Your task to perform on an android device: snooze an email in the gmail app Image 0: 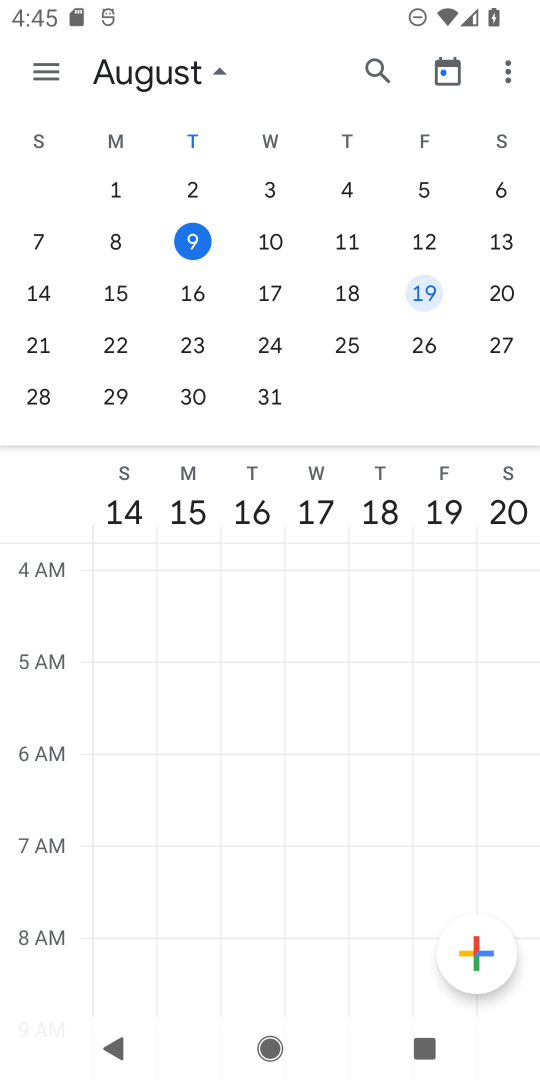
Step 0: press home button
Your task to perform on an android device: snooze an email in the gmail app Image 1: 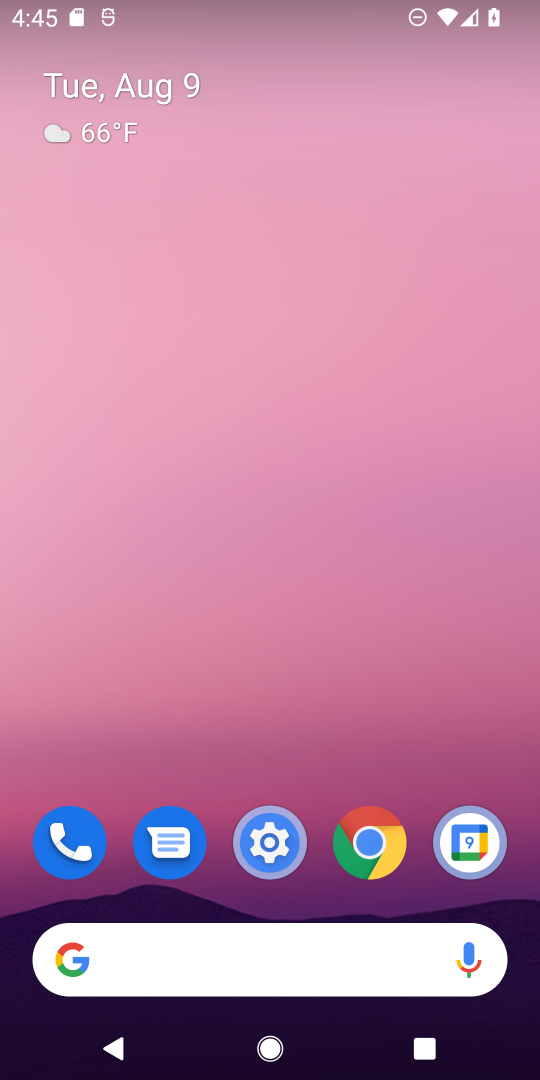
Step 1: drag from (257, 948) to (236, 559)
Your task to perform on an android device: snooze an email in the gmail app Image 2: 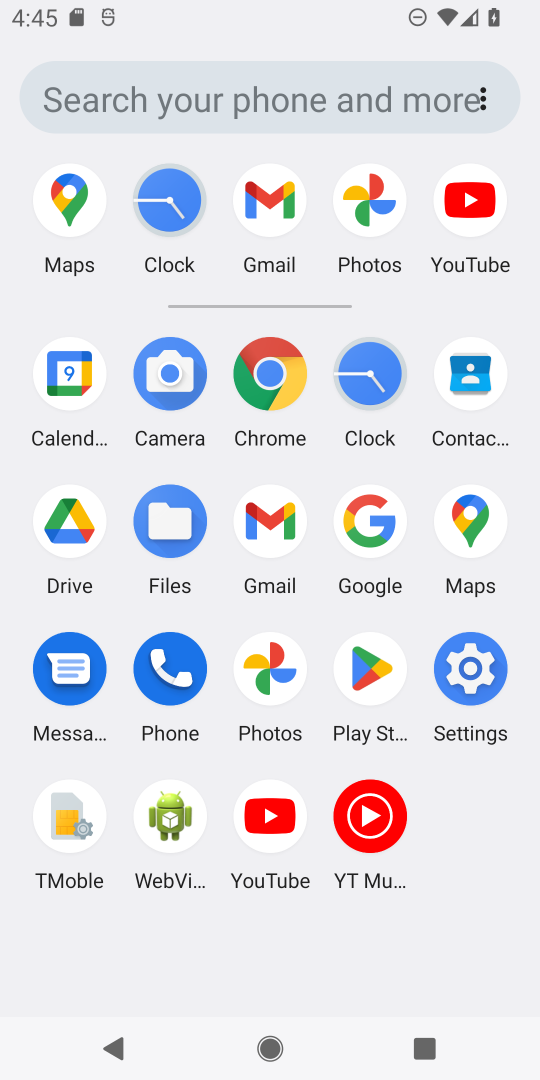
Step 2: click (265, 511)
Your task to perform on an android device: snooze an email in the gmail app Image 3: 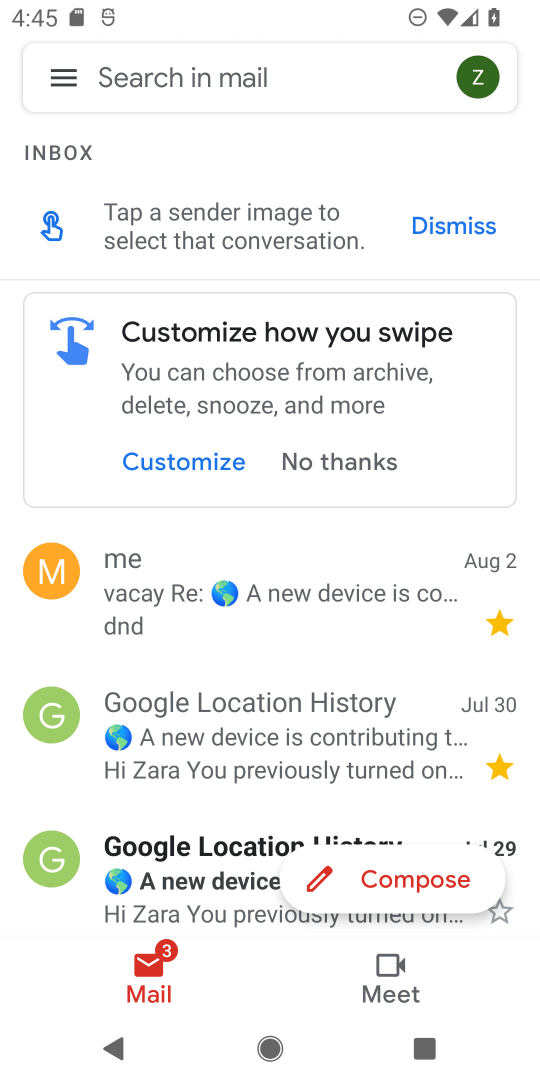
Step 3: click (73, 82)
Your task to perform on an android device: snooze an email in the gmail app Image 4: 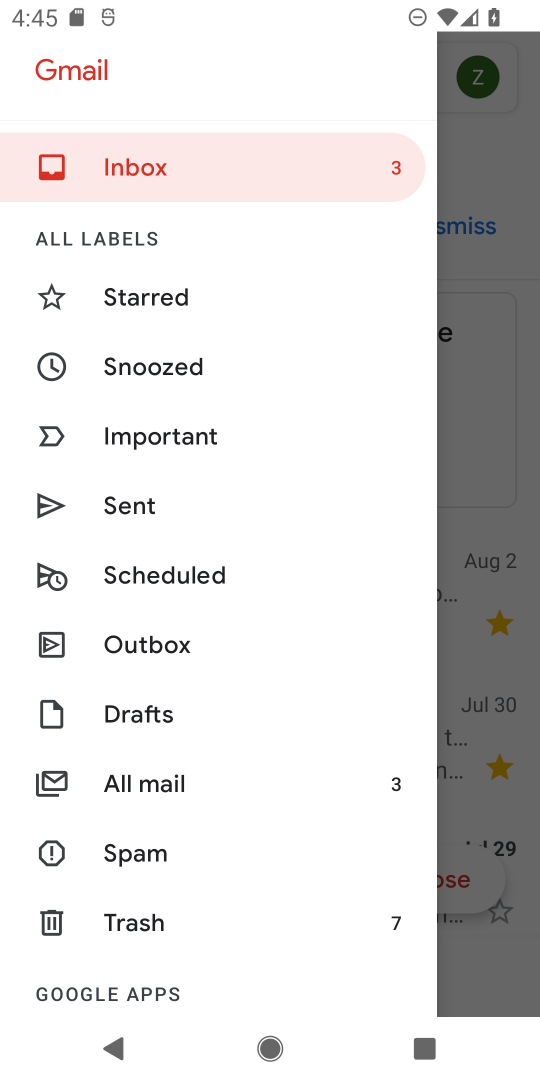
Step 4: click (170, 379)
Your task to perform on an android device: snooze an email in the gmail app Image 5: 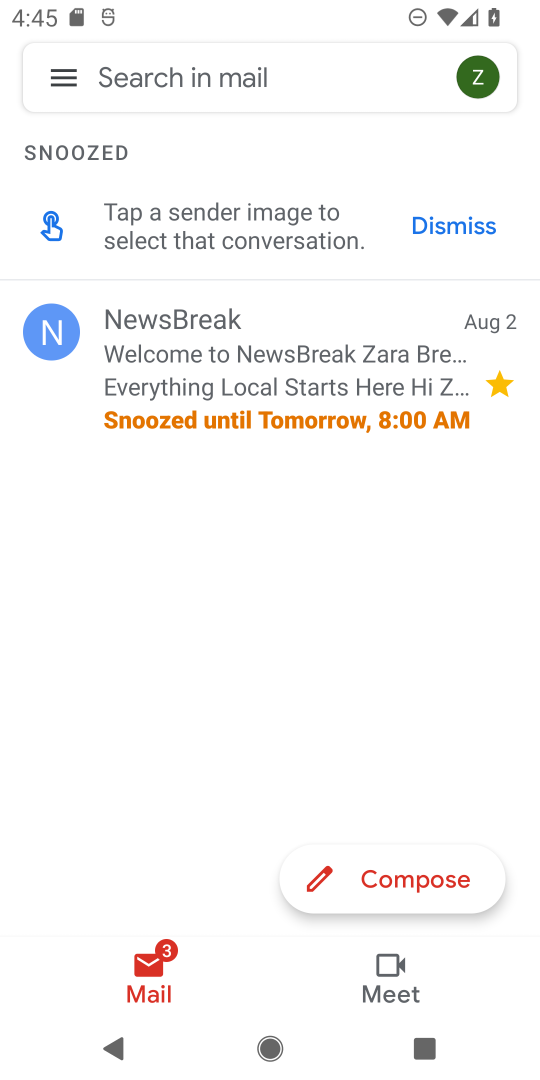
Step 5: press back button
Your task to perform on an android device: snooze an email in the gmail app Image 6: 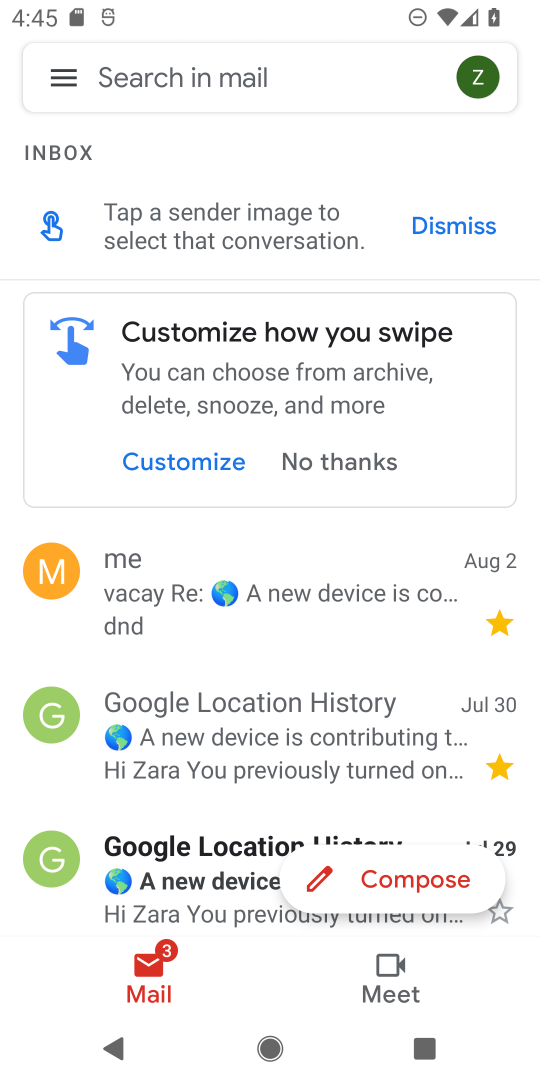
Step 6: click (299, 587)
Your task to perform on an android device: snooze an email in the gmail app Image 7: 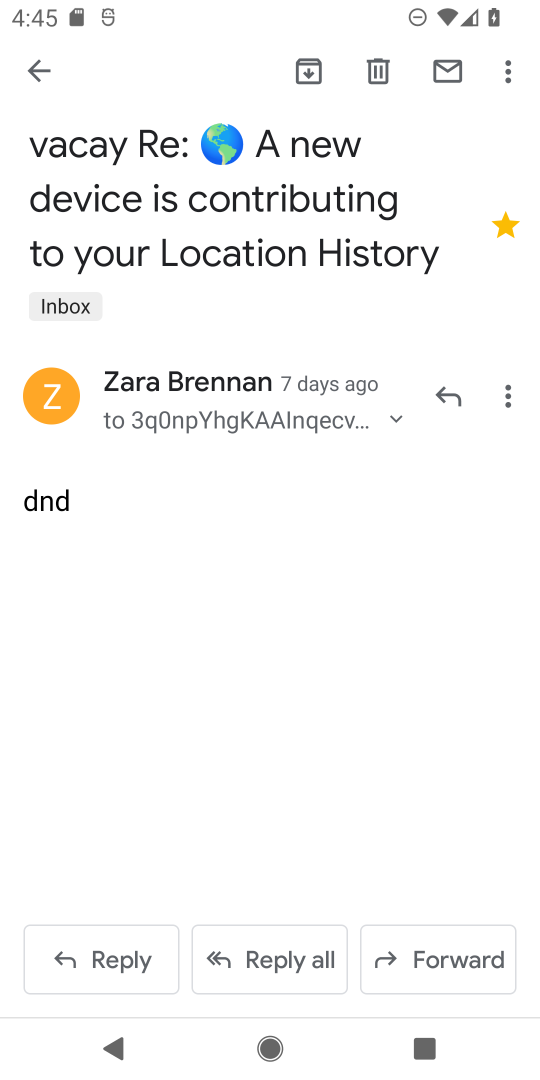
Step 7: click (500, 67)
Your task to perform on an android device: snooze an email in the gmail app Image 8: 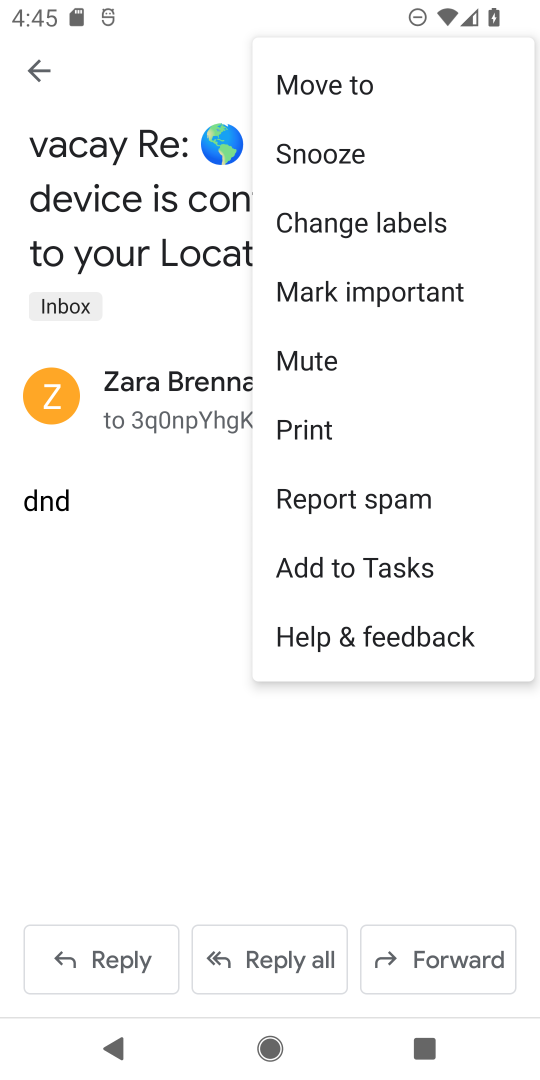
Step 8: click (375, 170)
Your task to perform on an android device: snooze an email in the gmail app Image 9: 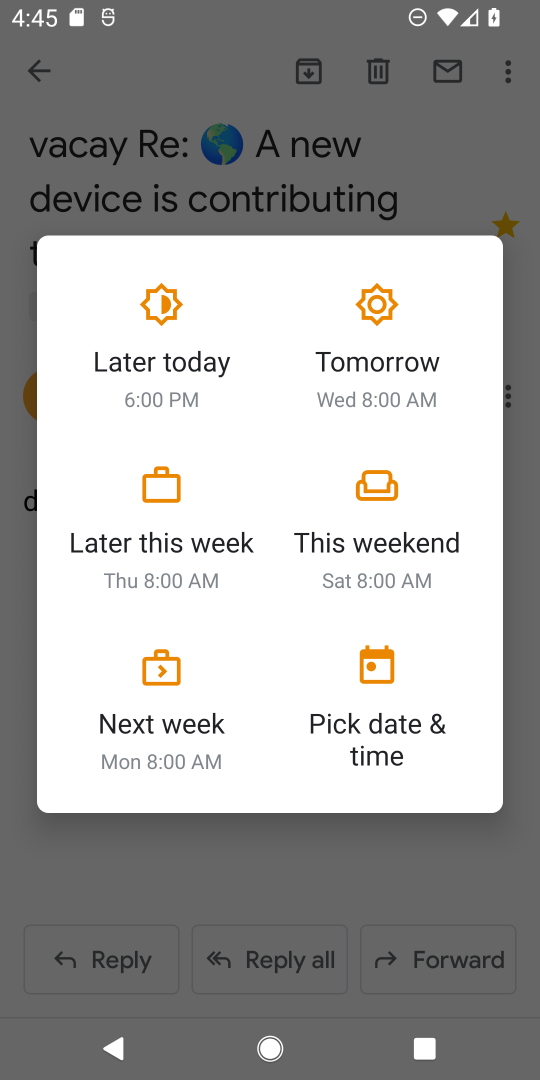
Step 9: click (133, 675)
Your task to perform on an android device: snooze an email in the gmail app Image 10: 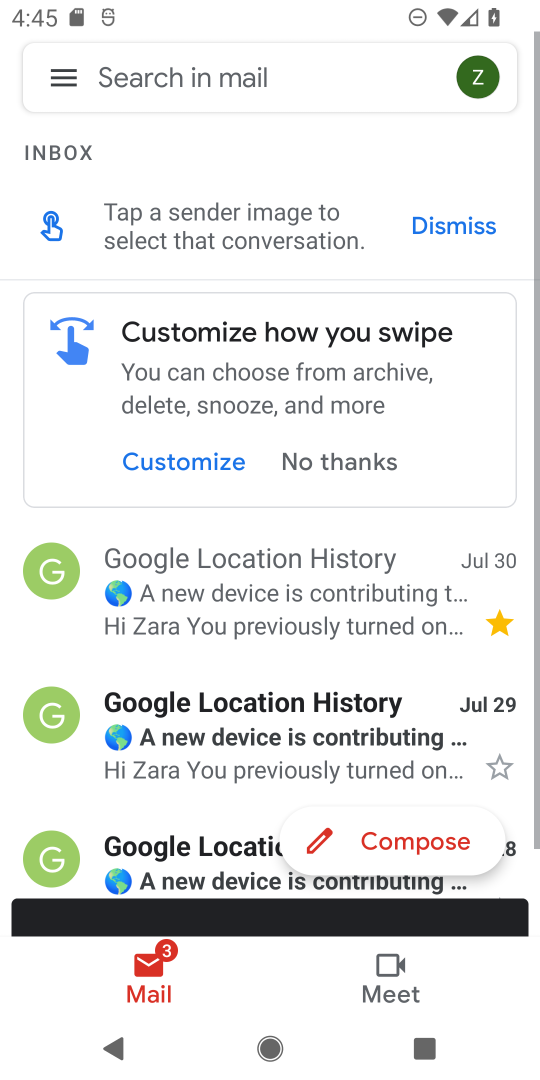
Step 10: task complete